Your task to perform on an android device: Play the last video I watched on Youtube Image 0: 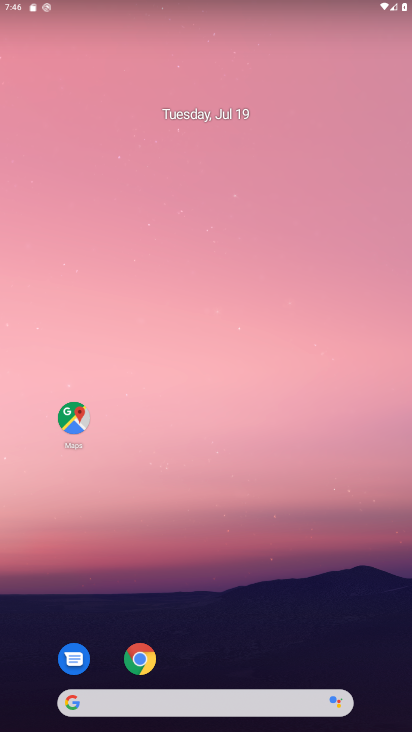
Step 0: drag from (187, 641) to (214, 21)
Your task to perform on an android device: Play the last video I watched on Youtube Image 1: 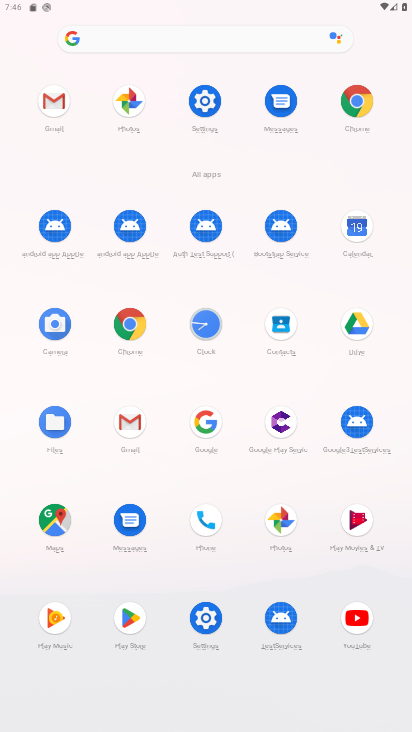
Step 1: click (351, 625)
Your task to perform on an android device: Play the last video I watched on Youtube Image 2: 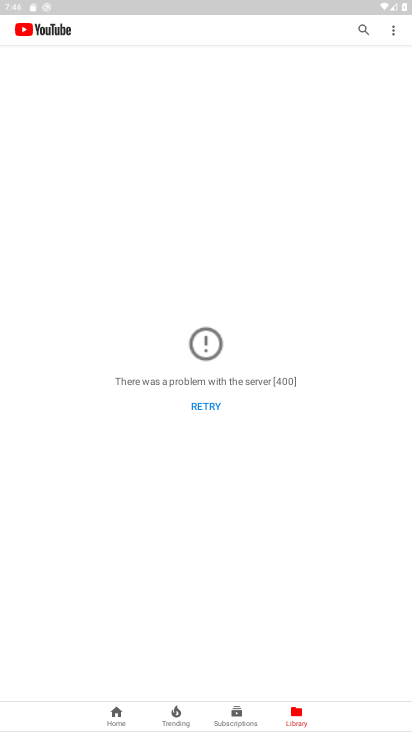
Step 2: click (202, 401)
Your task to perform on an android device: Play the last video I watched on Youtube Image 3: 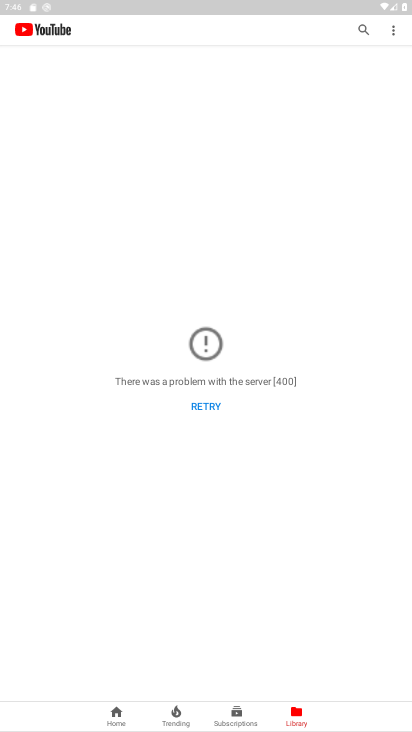
Step 3: click (202, 401)
Your task to perform on an android device: Play the last video I watched on Youtube Image 4: 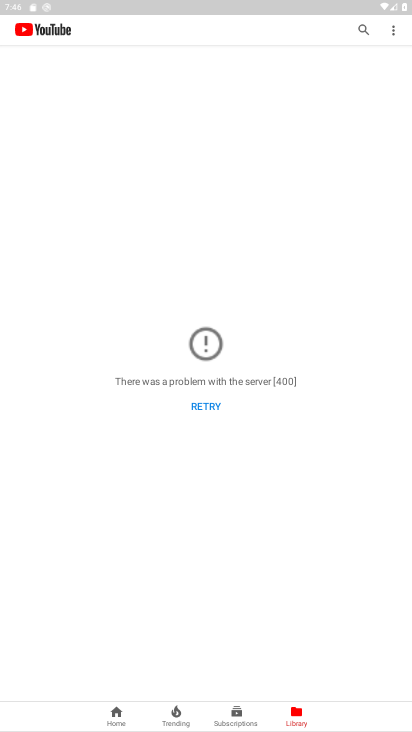
Step 4: click (202, 401)
Your task to perform on an android device: Play the last video I watched on Youtube Image 5: 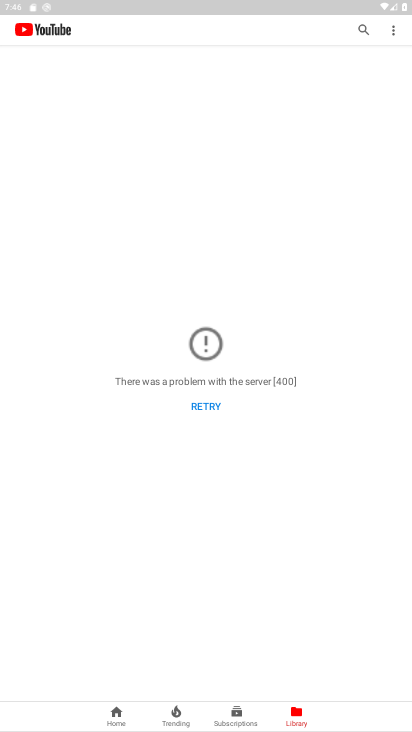
Step 5: click (202, 401)
Your task to perform on an android device: Play the last video I watched on Youtube Image 6: 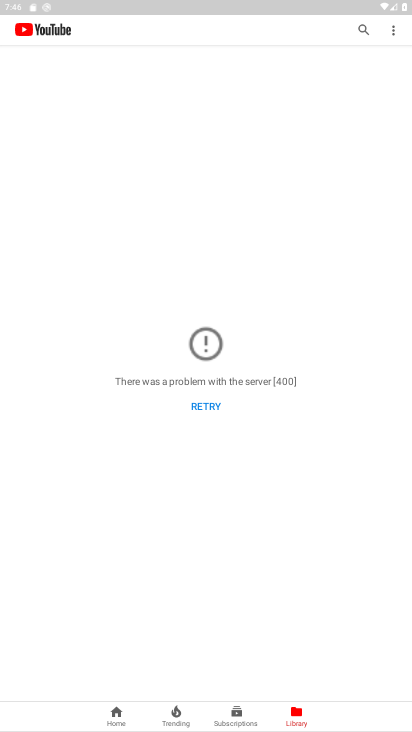
Step 6: click (202, 401)
Your task to perform on an android device: Play the last video I watched on Youtube Image 7: 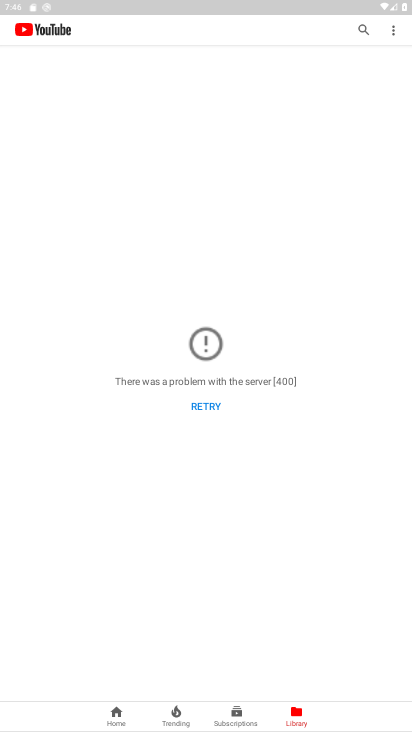
Step 7: task complete